Your task to perform on an android device: What's the weather? Image 0: 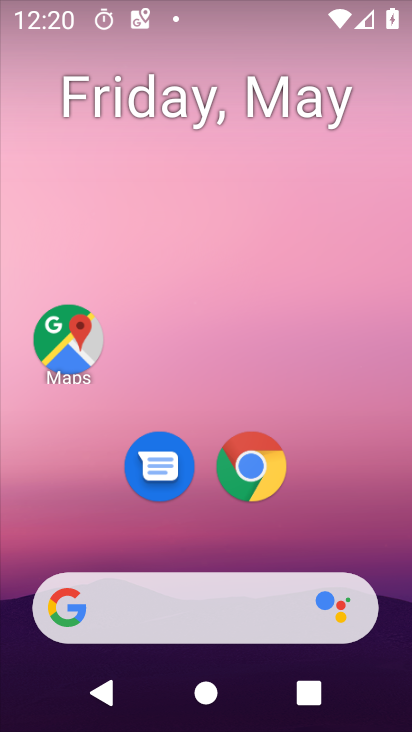
Step 0: drag from (395, 627) to (392, 472)
Your task to perform on an android device: What's the weather? Image 1: 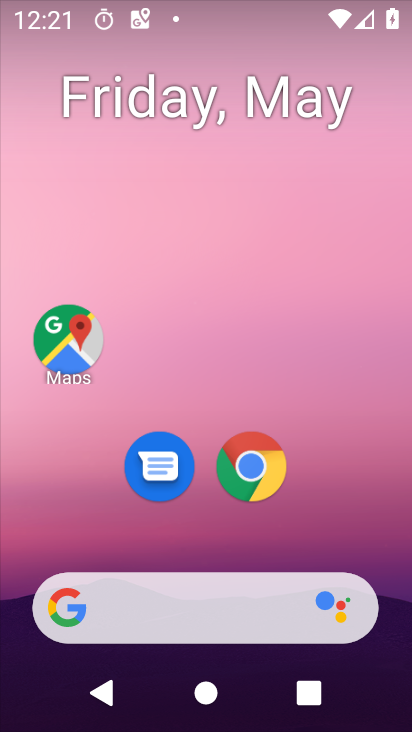
Step 1: drag from (390, 636) to (292, 26)
Your task to perform on an android device: What's the weather? Image 2: 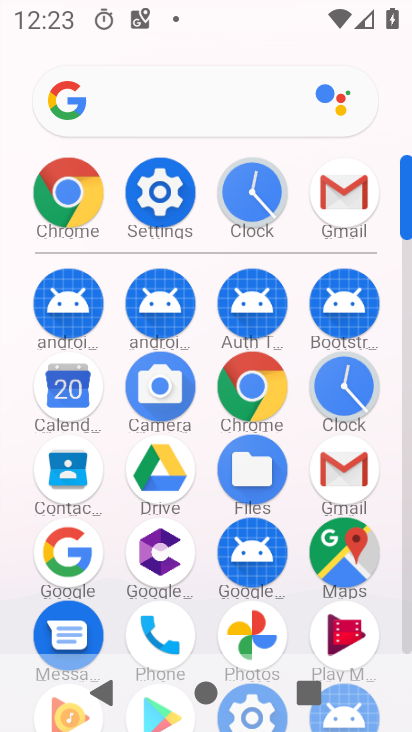
Step 2: click (81, 527)
Your task to perform on an android device: What's the weather? Image 3: 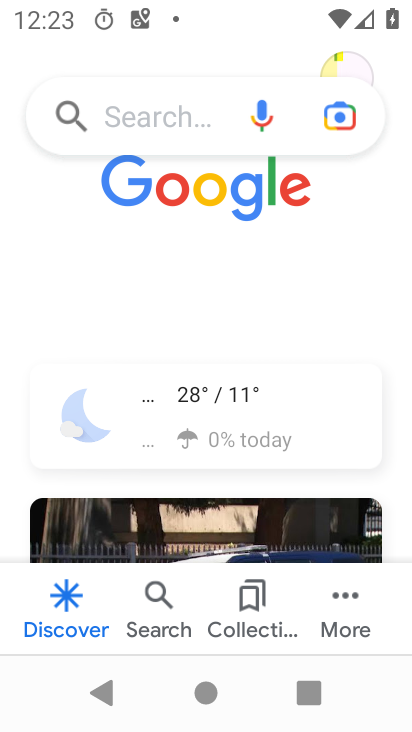
Step 3: click (166, 120)
Your task to perform on an android device: What's the weather? Image 4: 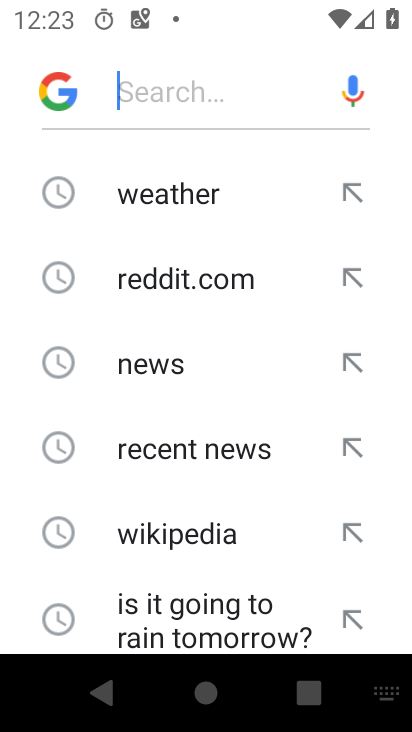
Step 4: click (189, 187)
Your task to perform on an android device: What's the weather? Image 5: 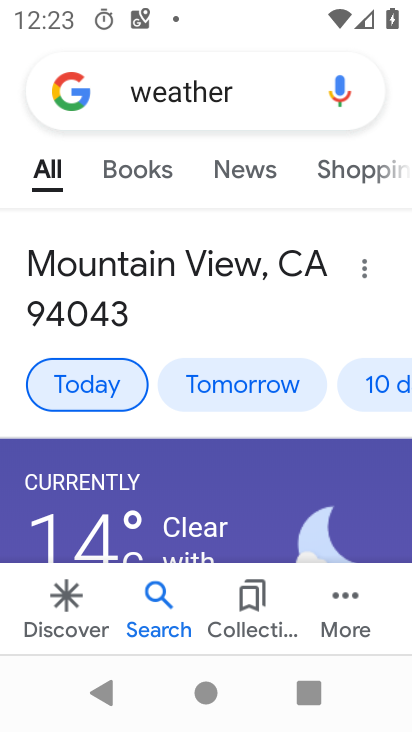
Step 5: task complete